Your task to perform on an android device: Open Google Chrome and click the shortcut for Amazon.com Image 0: 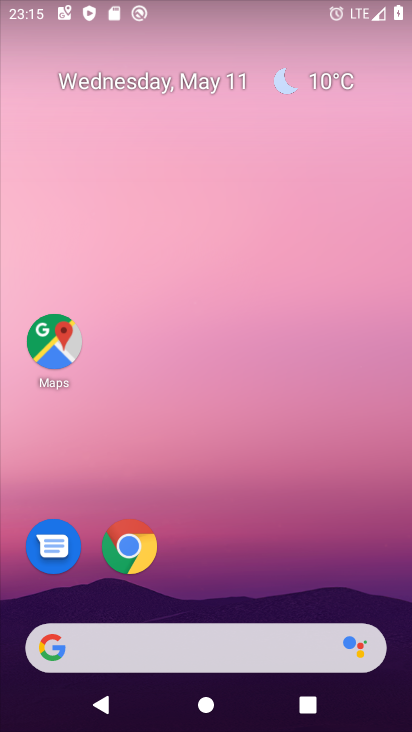
Step 0: click (128, 545)
Your task to perform on an android device: Open Google Chrome and click the shortcut for Amazon.com Image 1: 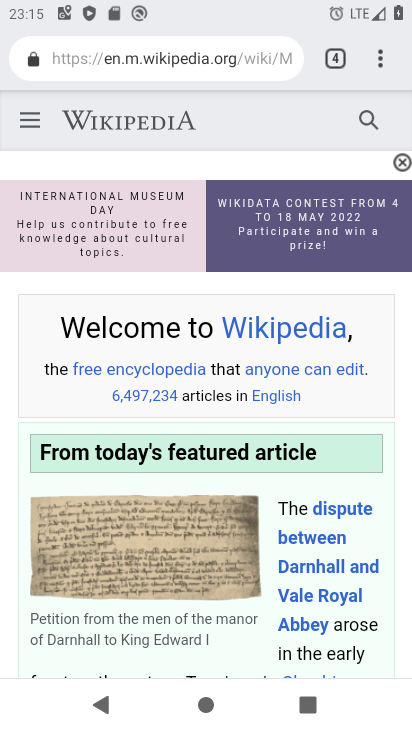
Step 1: click (376, 67)
Your task to perform on an android device: Open Google Chrome and click the shortcut for Amazon.com Image 2: 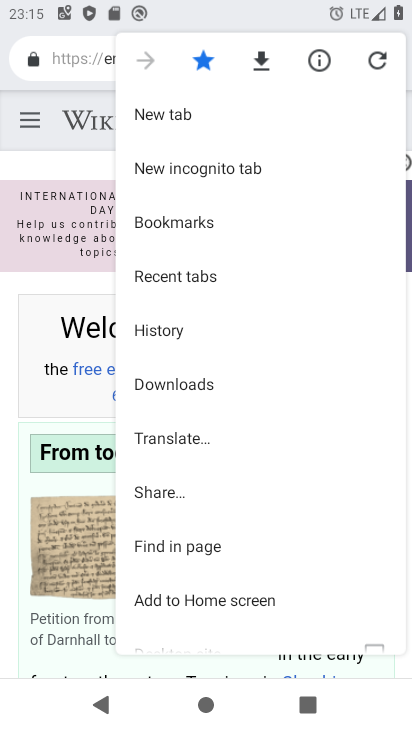
Step 2: click (167, 110)
Your task to perform on an android device: Open Google Chrome and click the shortcut for Amazon.com Image 3: 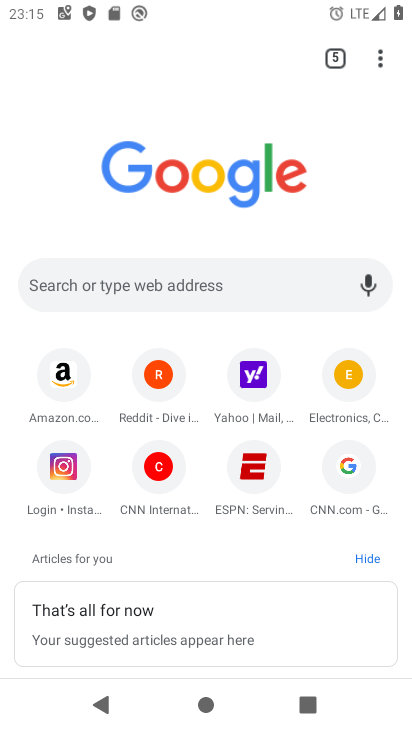
Step 3: click (63, 374)
Your task to perform on an android device: Open Google Chrome and click the shortcut for Amazon.com Image 4: 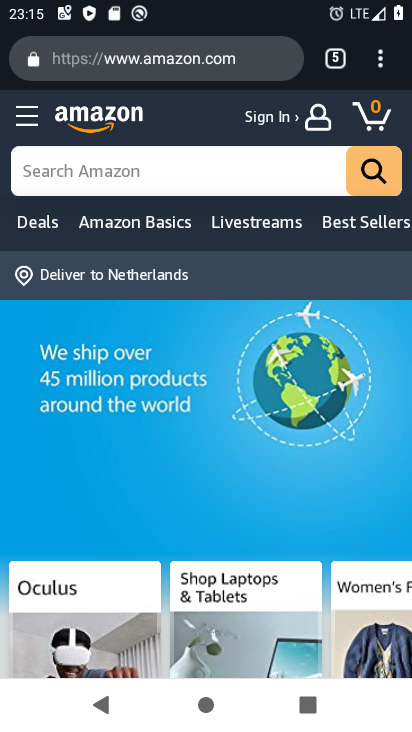
Step 4: task complete